Your task to perform on an android device: stop showing notifications on the lock screen Image 0: 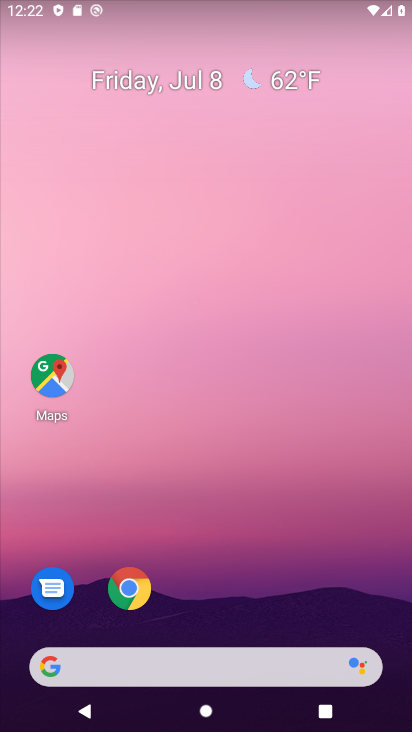
Step 0: drag from (230, 508) to (178, 31)
Your task to perform on an android device: stop showing notifications on the lock screen Image 1: 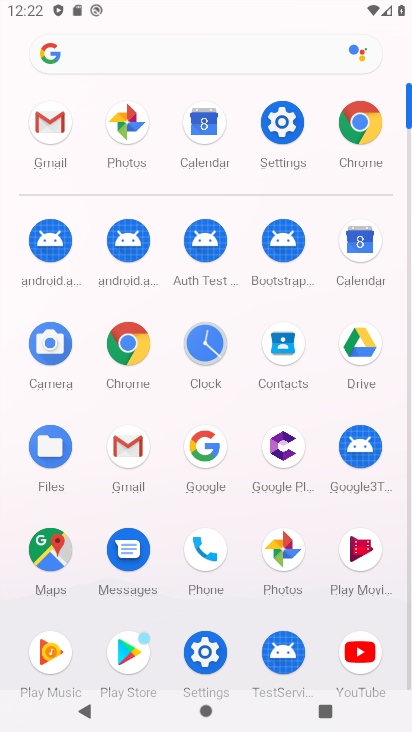
Step 1: click (277, 110)
Your task to perform on an android device: stop showing notifications on the lock screen Image 2: 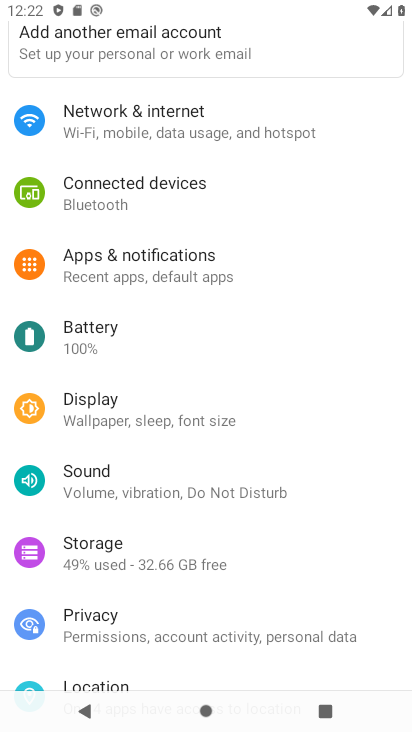
Step 2: click (173, 279)
Your task to perform on an android device: stop showing notifications on the lock screen Image 3: 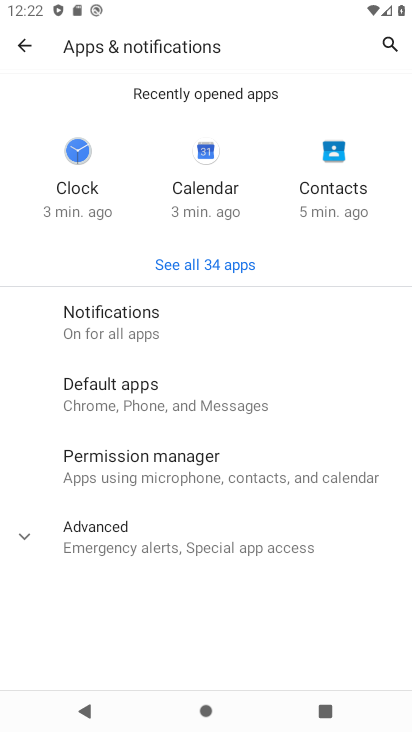
Step 3: click (111, 560)
Your task to perform on an android device: stop showing notifications on the lock screen Image 4: 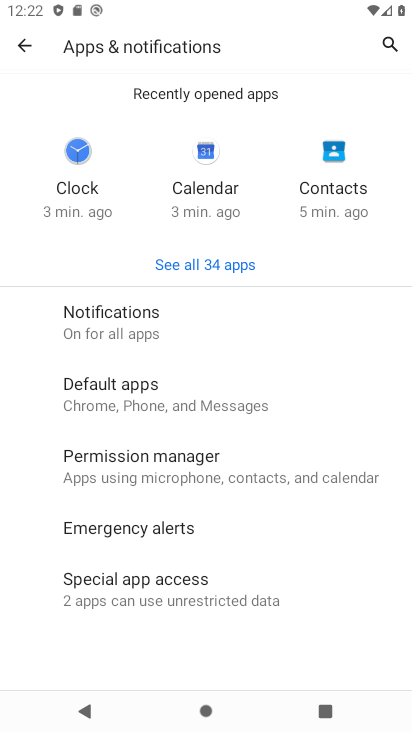
Step 4: click (138, 330)
Your task to perform on an android device: stop showing notifications on the lock screen Image 5: 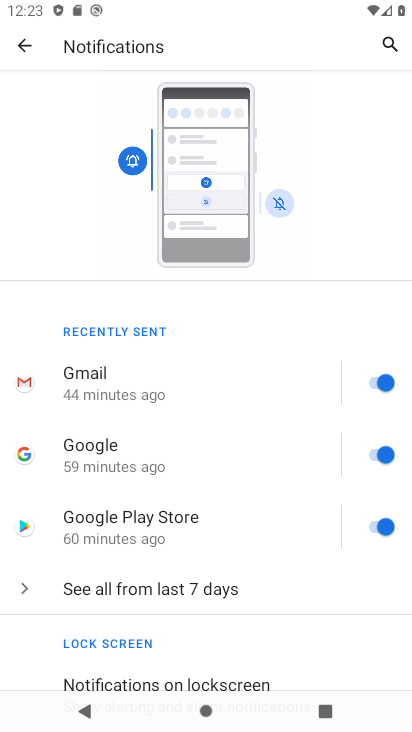
Step 5: click (190, 672)
Your task to perform on an android device: stop showing notifications on the lock screen Image 6: 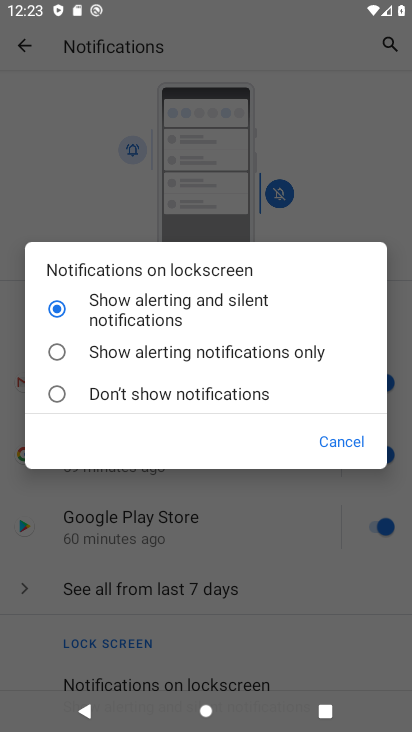
Step 6: click (63, 388)
Your task to perform on an android device: stop showing notifications on the lock screen Image 7: 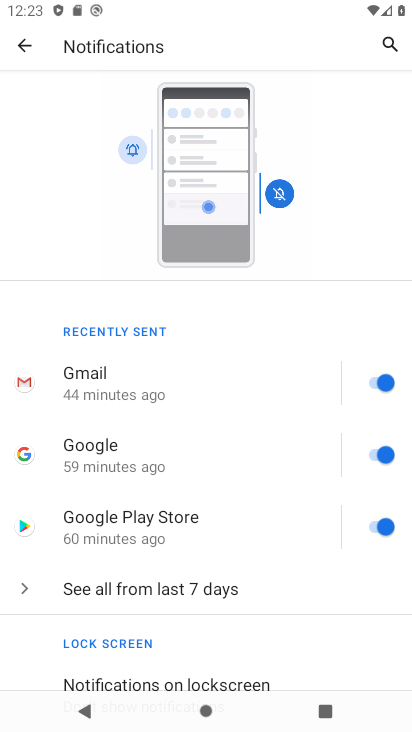
Step 7: task complete